Your task to perform on an android device: What is the recent news? Image 0: 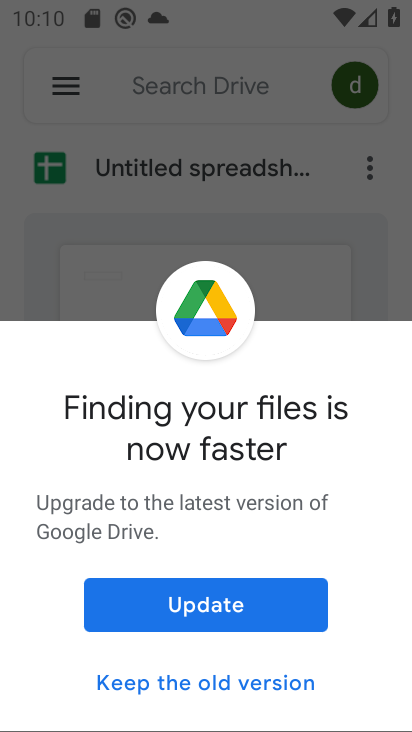
Step 0: press home button
Your task to perform on an android device: What is the recent news? Image 1: 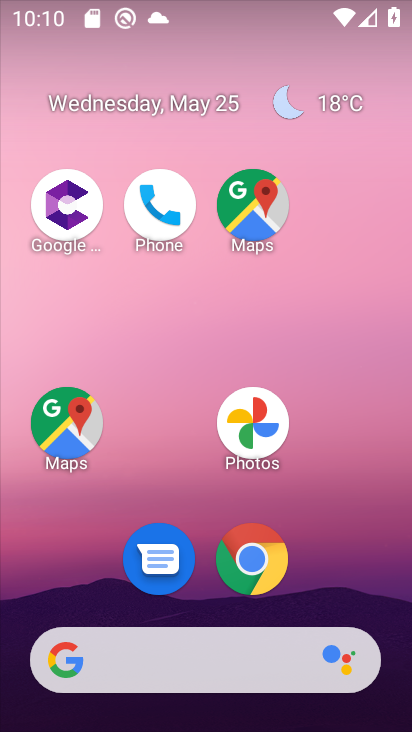
Step 1: click (76, 426)
Your task to perform on an android device: What is the recent news? Image 2: 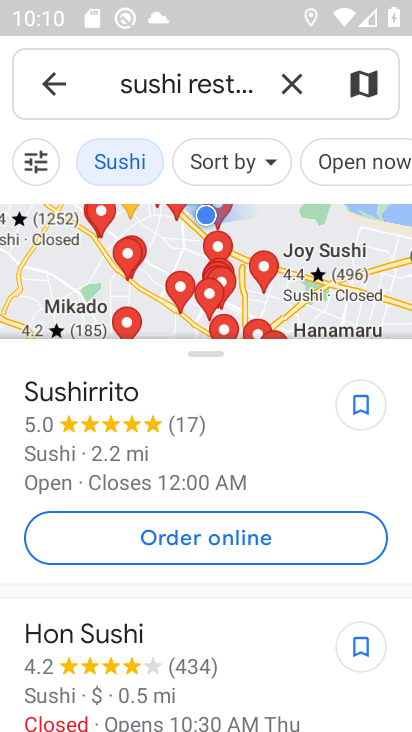
Step 2: press home button
Your task to perform on an android device: What is the recent news? Image 3: 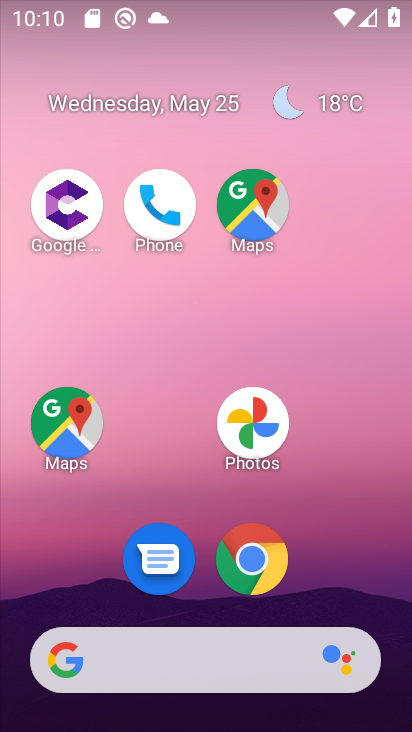
Step 3: click (249, 559)
Your task to perform on an android device: What is the recent news? Image 4: 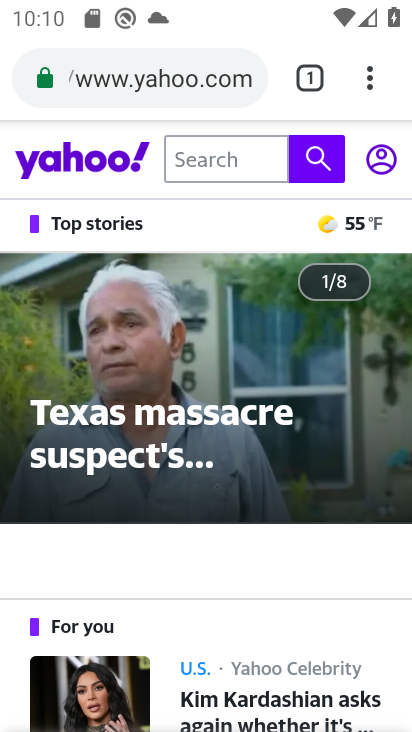
Step 4: click (305, 76)
Your task to perform on an android device: What is the recent news? Image 5: 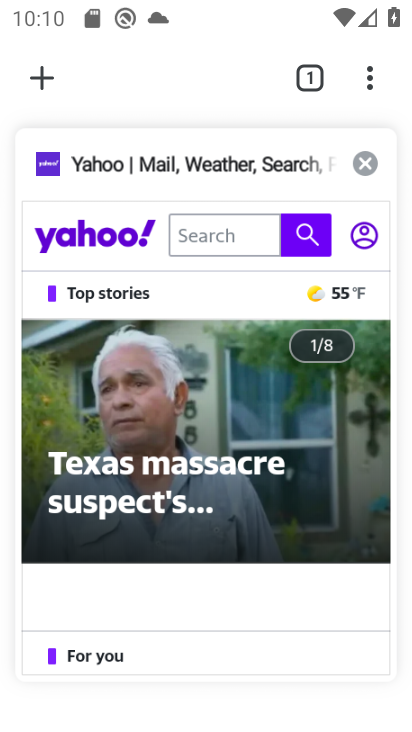
Step 5: click (48, 73)
Your task to perform on an android device: What is the recent news? Image 6: 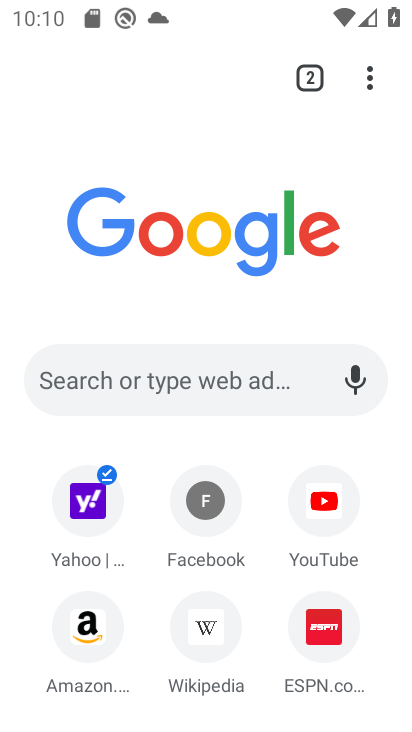
Step 6: click (140, 363)
Your task to perform on an android device: What is the recent news? Image 7: 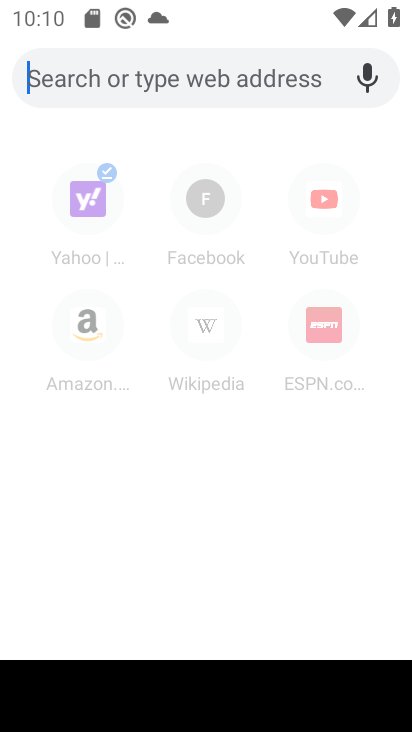
Step 7: type "recent news"
Your task to perform on an android device: What is the recent news? Image 8: 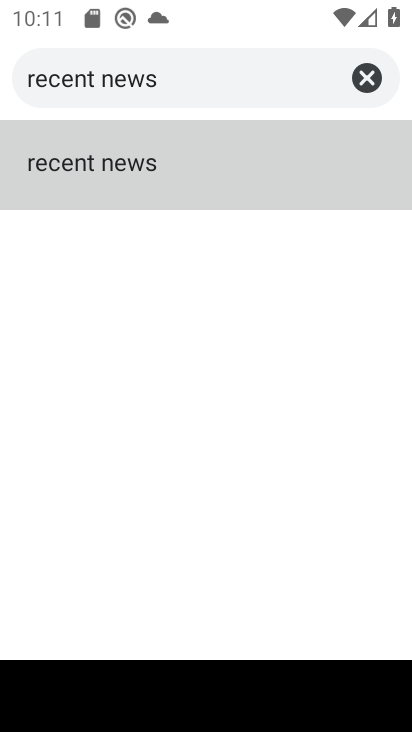
Step 8: click (165, 163)
Your task to perform on an android device: What is the recent news? Image 9: 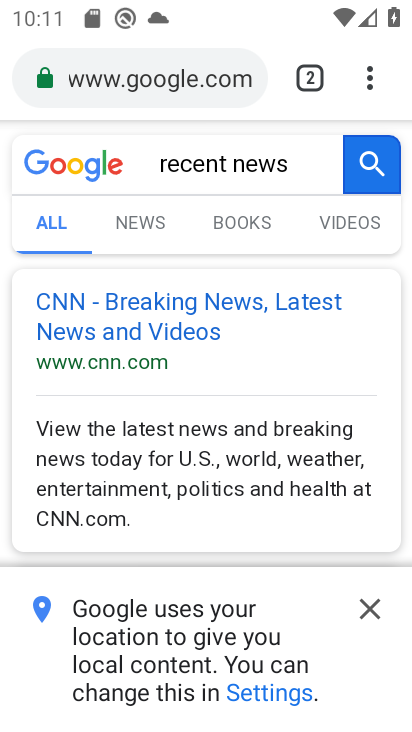
Step 9: click (136, 223)
Your task to perform on an android device: What is the recent news? Image 10: 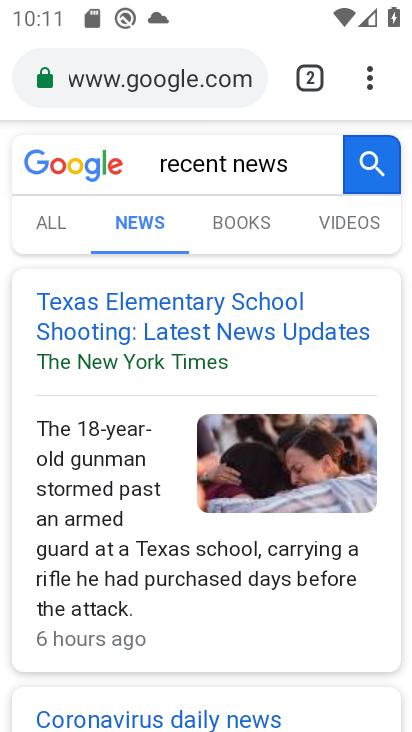
Step 10: task complete